Your task to perform on an android device: open wifi settings Image 0: 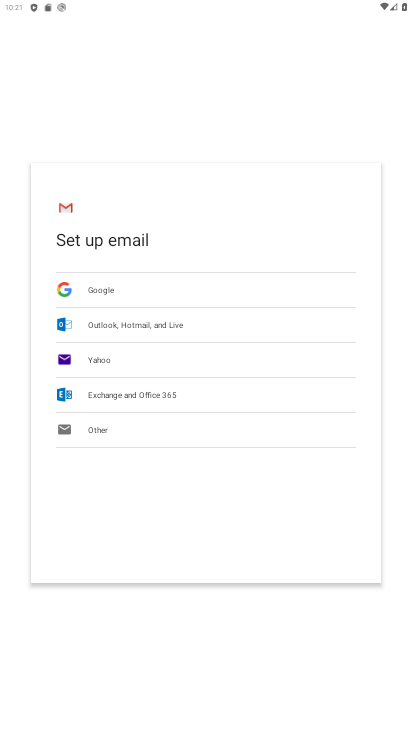
Step 0: press home button
Your task to perform on an android device: open wifi settings Image 1: 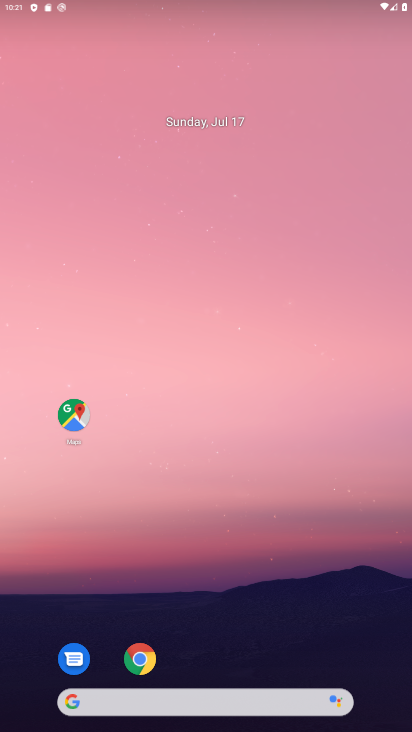
Step 1: drag from (285, 594) to (249, 116)
Your task to perform on an android device: open wifi settings Image 2: 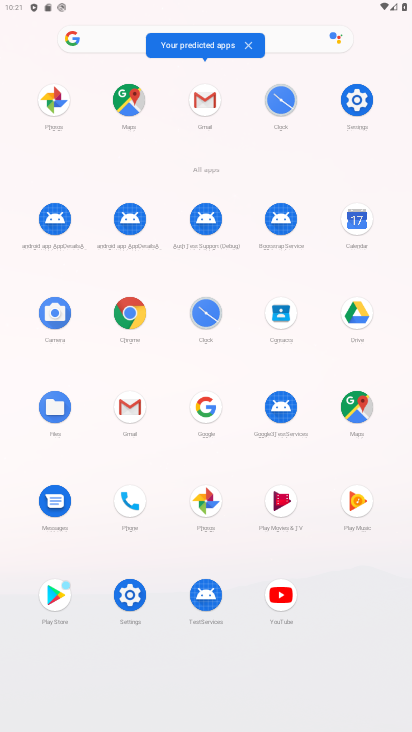
Step 2: click (350, 99)
Your task to perform on an android device: open wifi settings Image 3: 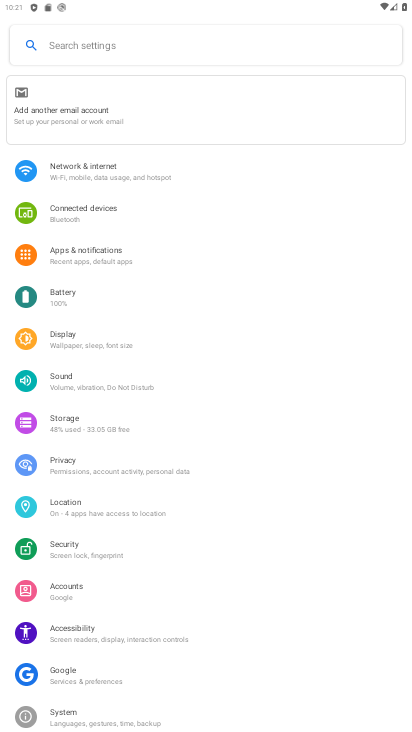
Step 3: click (117, 169)
Your task to perform on an android device: open wifi settings Image 4: 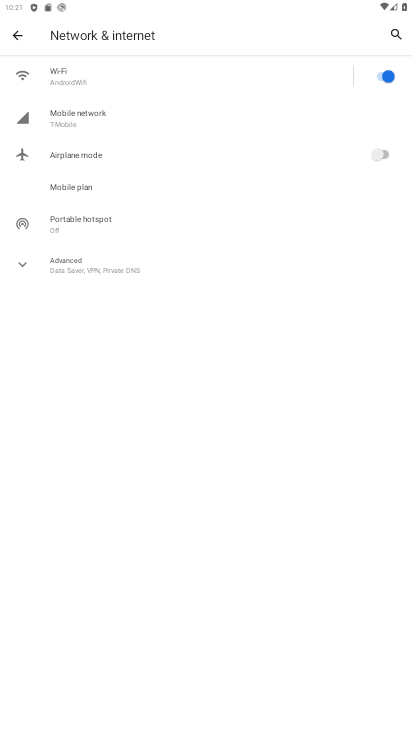
Step 4: click (143, 77)
Your task to perform on an android device: open wifi settings Image 5: 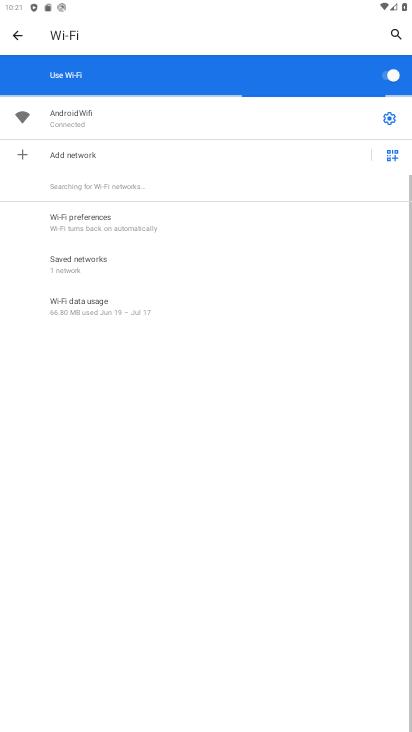
Step 5: click (392, 114)
Your task to perform on an android device: open wifi settings Image 6: 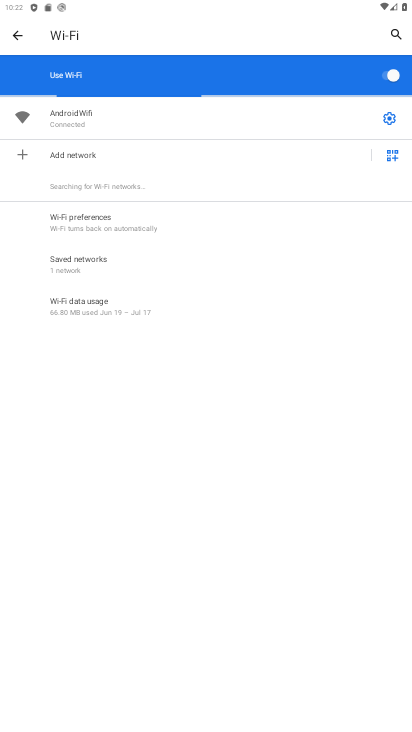
Step 6: click (389, 119)
Your task to perform on an android device: open wifi settings Image 7: 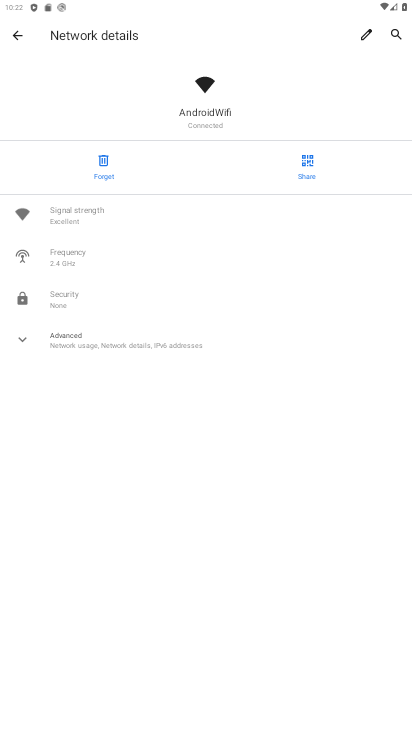
Step 7: task complete